Your task to perform on an android device: Go to network settings Image 0: 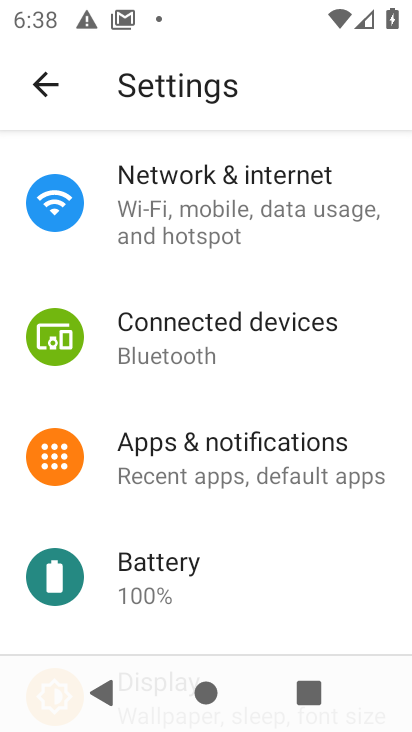
Step 0: press home button
Your task to perform on an android device: Go to network settings Image 1: 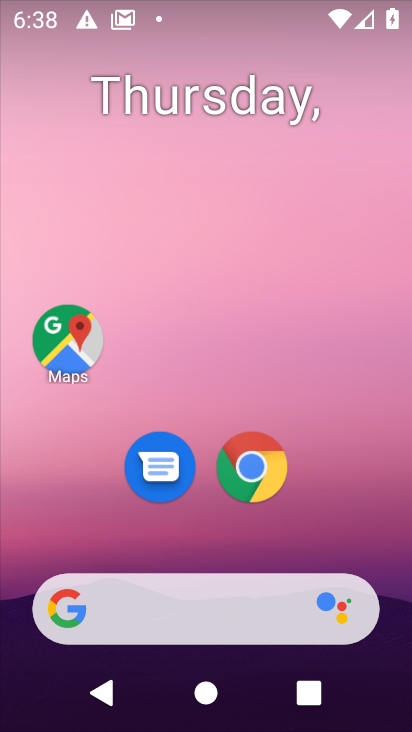
Step 1: task complete